Your task to perform on an android device: Is it going to rain this weekend? Image 0: 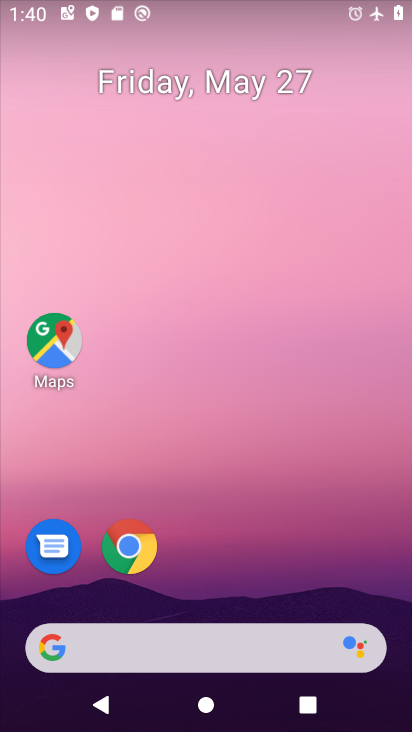
Step 0: drag from (266, 658) to (329, 234)
Your task to perform on an android device: Is it going to rain this weekend? Image 1: 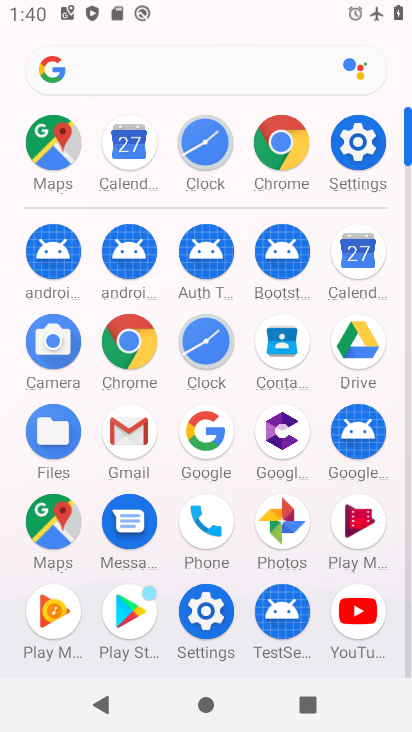
Step 1: click (153, 101)
Your task to perform on an android device: Is it going to rain this weekend? Image 2: 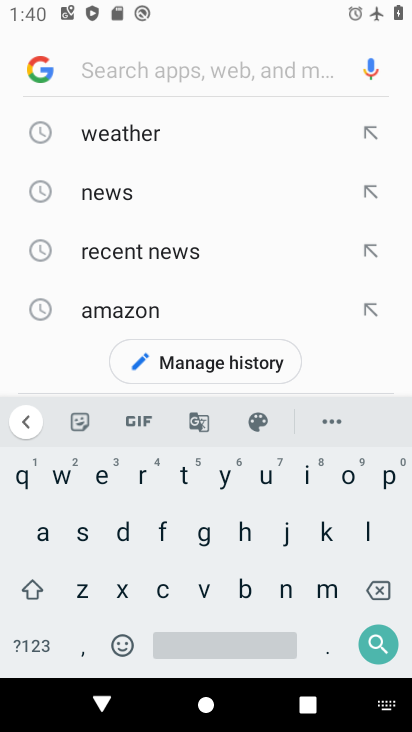
Step 2: click (126, 131)
Your task to perform on an android device: Is it going to rain this weekend? Image 3: 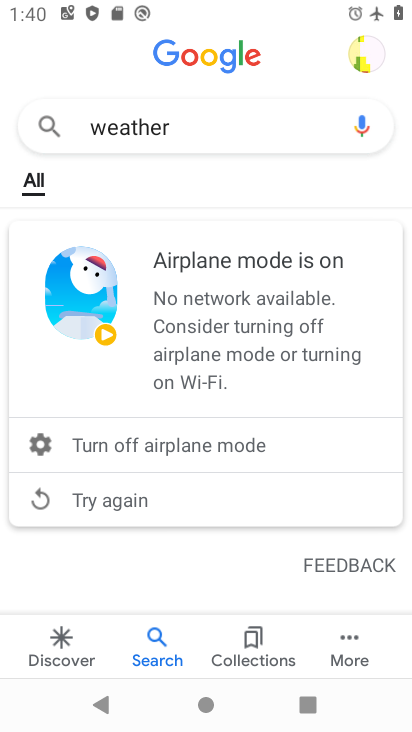
Step 3: press home button
Your task to perform on an android device: Is it going to rain this weekend? Image 4: 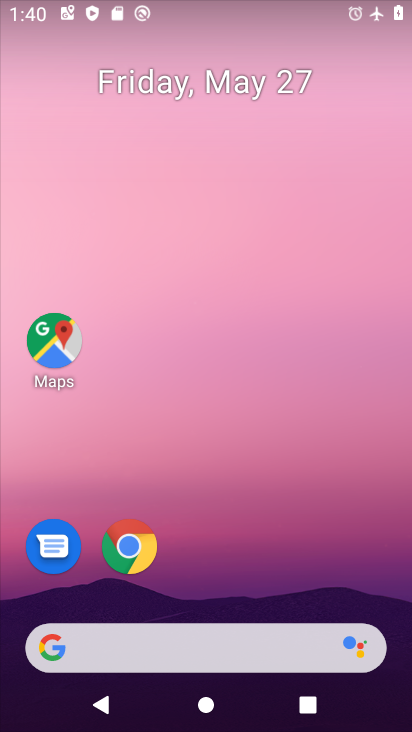
Step 4: drag from (270, 661) to (315, 105)
Your task to perform on an android device: Is it going to rain this weekend? Image 5: 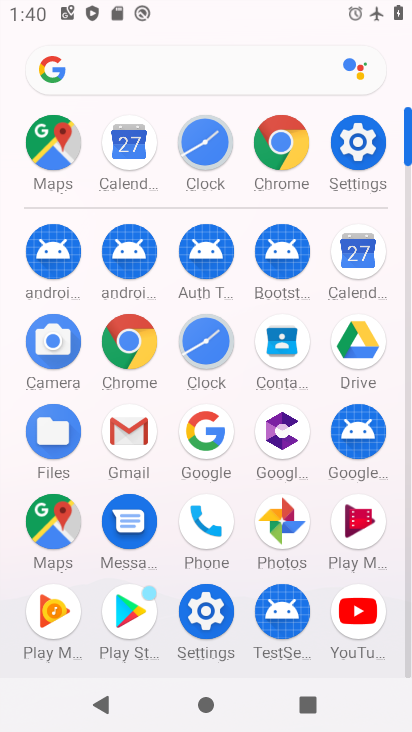
Step 5: click (349, 152)
Your task to perform on an android device: Is it going to rain this weekend? Image 6: 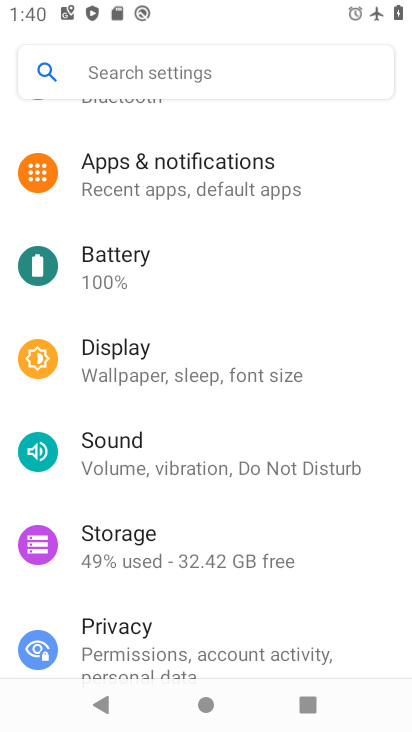
Step 6: drag from (182, 163) to (173, 403)
Your task to perform on an android device: Is it going to rain this weekend? Image 7: 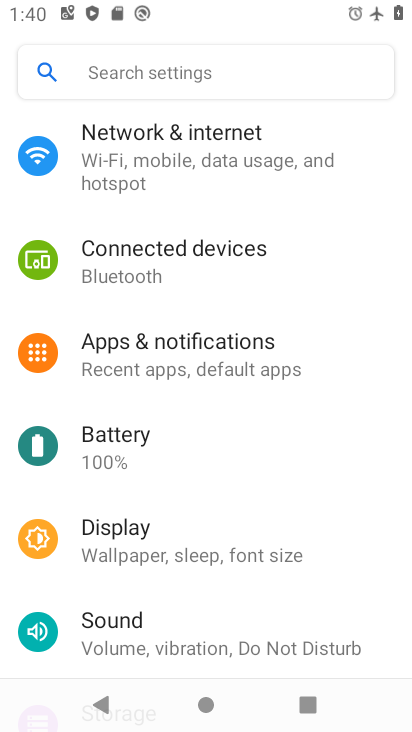
Step 7: click (193, 164)
Your task to perform on an android device: Is it going to rain this weekend? Image 8: 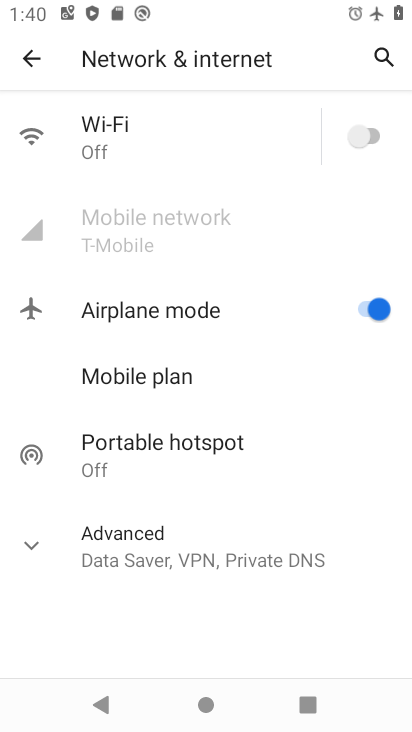
Step 8: click (374, 316)
Your task to perform on an android device: Is it going to rain this weekend? Image 9: 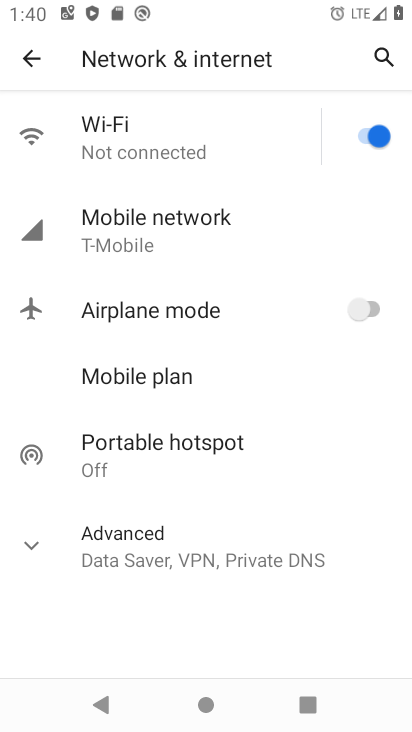
Step 9: press home button
Your task to perform on an android device: Is it going to rain this weekend? Image 10: 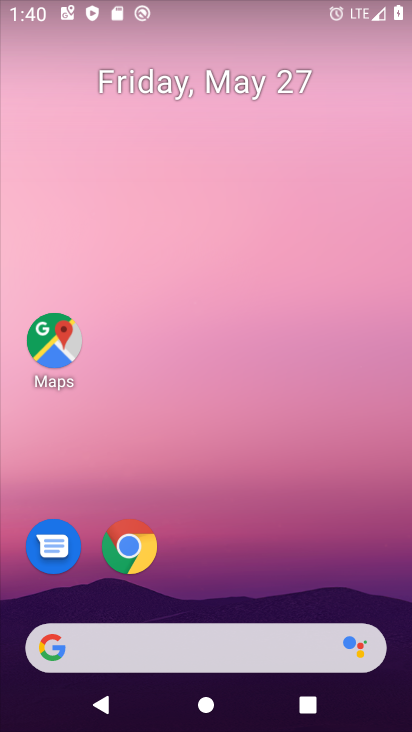
Step 10: drag from (276, 678) to (278, 290)
Your task to perform on an android device: Is it going to rain this weekend? Image 11: 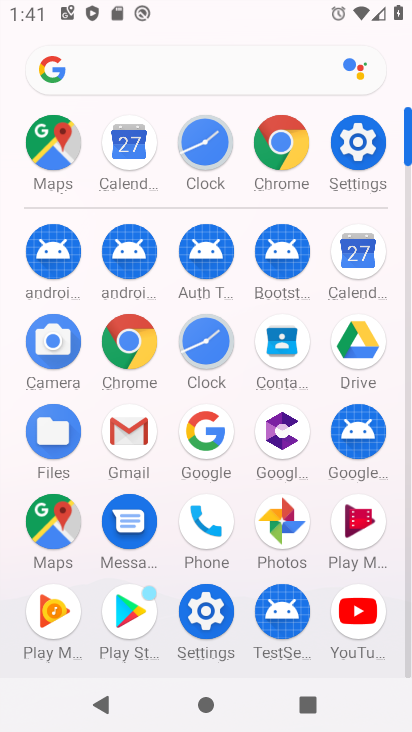
Step 11: click (178, 80)
Your task to perform on an android device: Is it going to rain this weekend? Image 12: 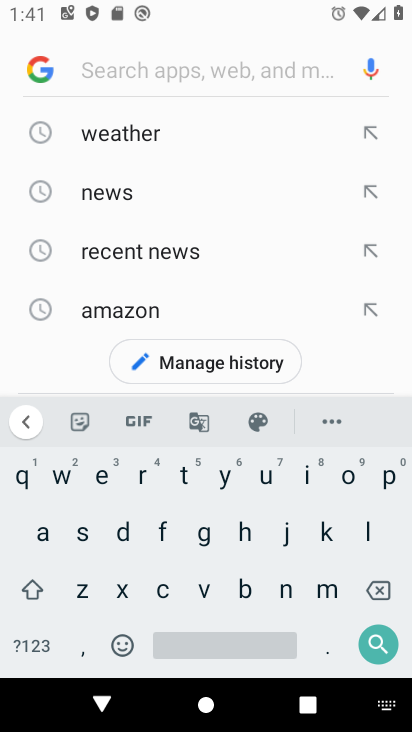
Step 12: click (155, 145)
Your task to perform on an android device: Is it going to rain this weekend? Image 13: 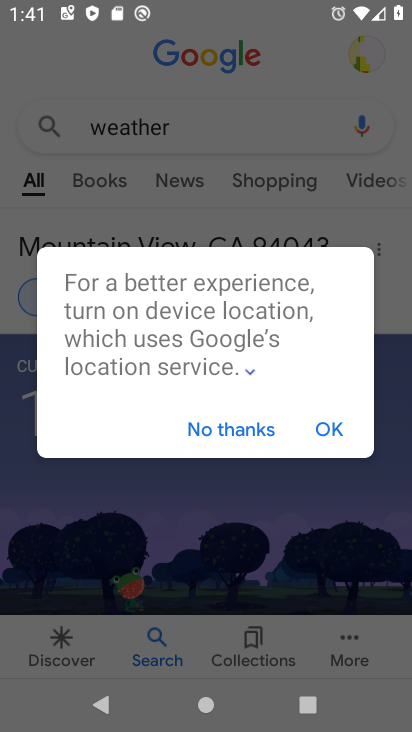
Step 13: click (243, 422)
Your task to perform on an android device: Is it going to rain this weekend? Image 14: 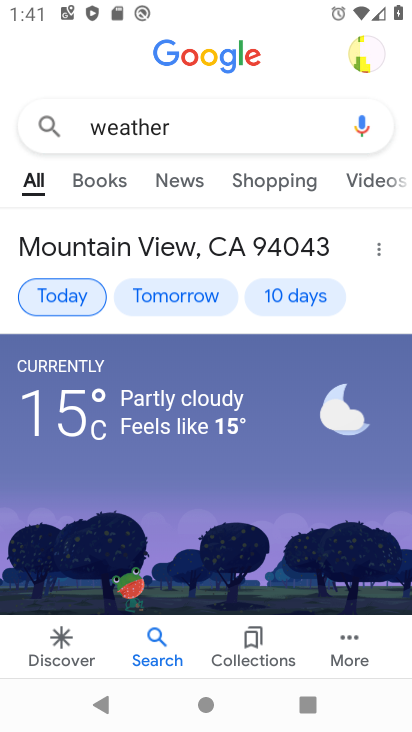
Step 14: click (268, 293)
Your task to perform on an android device: Is it going to rain this weekend? Image 15: 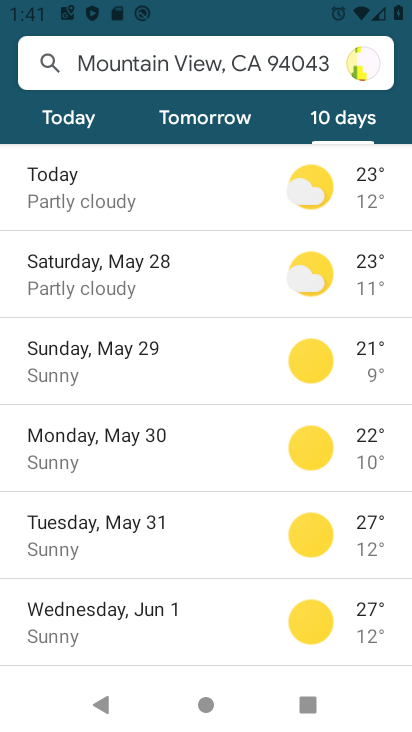
Step 15: task complete